Your task to perform on an android device: Is it going to rain tomorrow? Image 0: 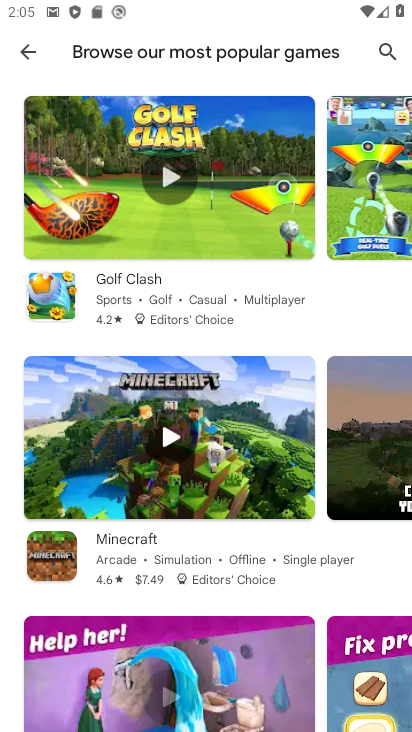
Step 0: press home button
Your task to perform on an android device: Is it going to rain tomorrow? Image 1: 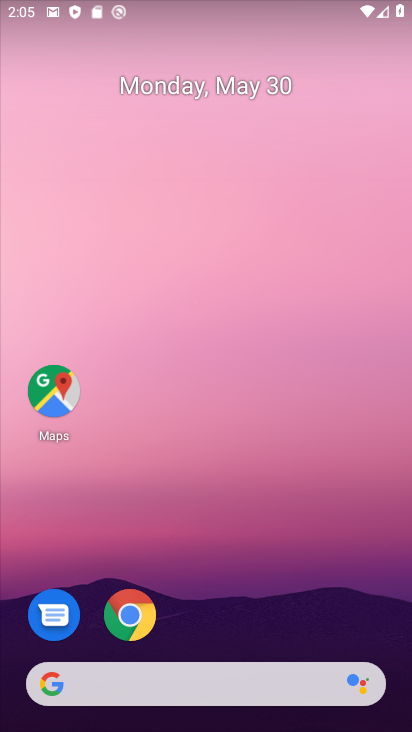
Step 1: click (182, 688)
Your task to perform on an android device: Is it going to rain tomorrow? Image 2: 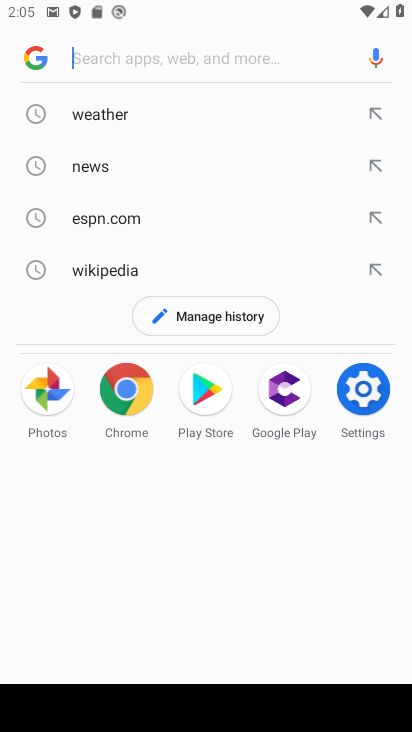
Step 2: click (108, 109)
Your task to perform on an android device: Is it going to rain tomorrow? Image 3: 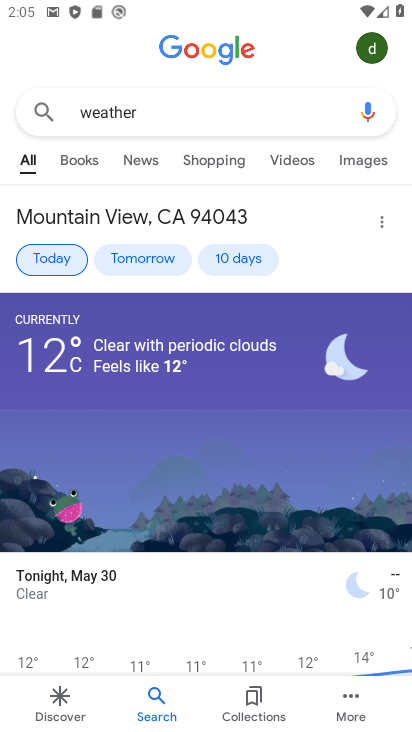
Step 3: click (56, 259)
Your task to perform on an android device: Is it going to rain tomorrow? Image 4: 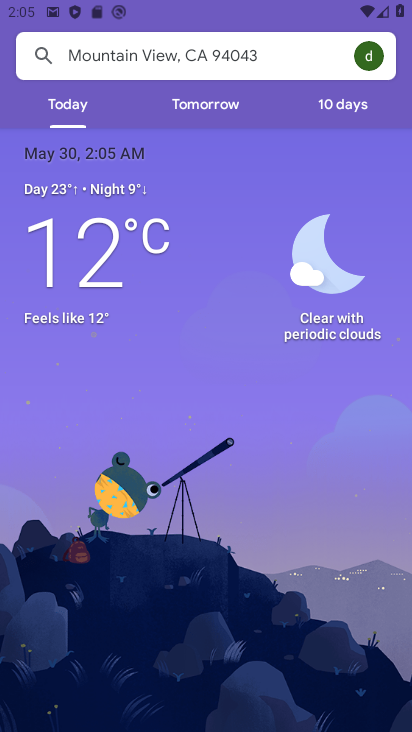
Step 4: click (201, 100)
Your task to perform on an android device: Is it going to rain tomorrow? Image 5: 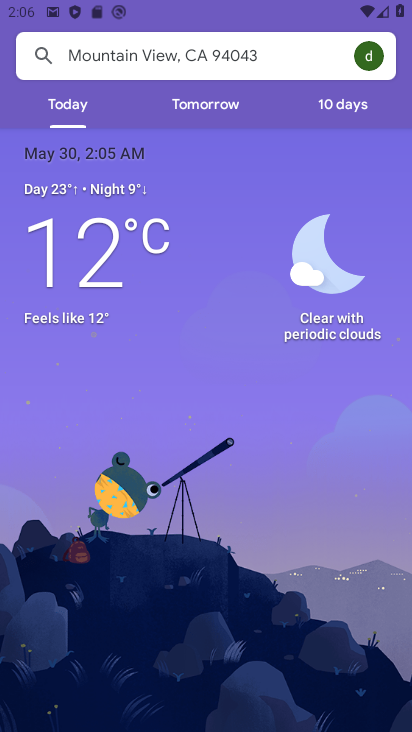
Step 5: click (201, 98)
Your task to perform on an android device: Is it going to rain tomorrow? Image 6: 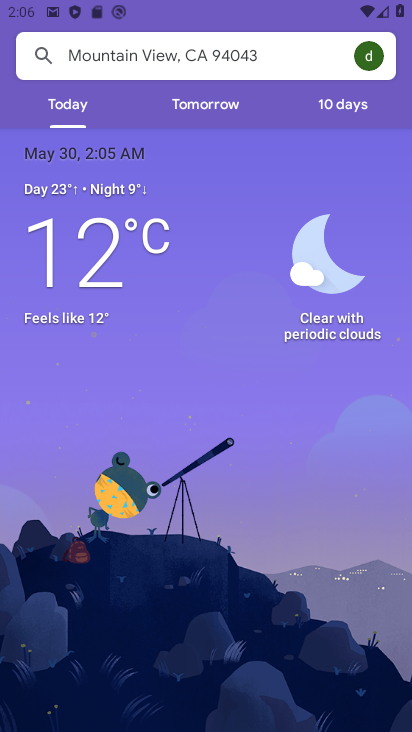
Step 6: click (201, 95)
Your task to perform on an android device: Is it going to rain tomorrow? Image 7: 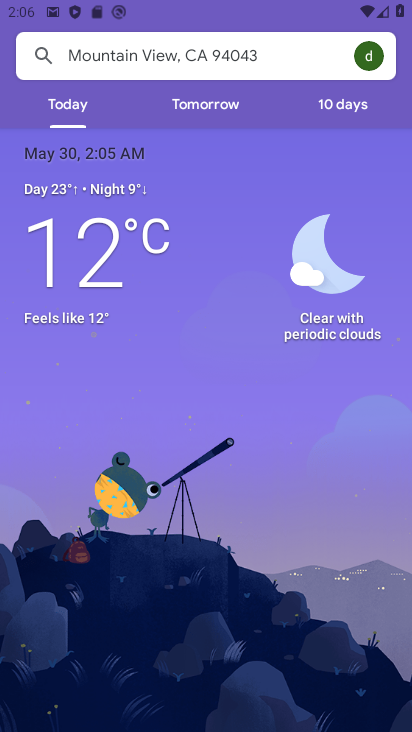
Step 7: click (217, 104)
Your task to perform on an android device: Is it going to rain tomorrow? Image 8: 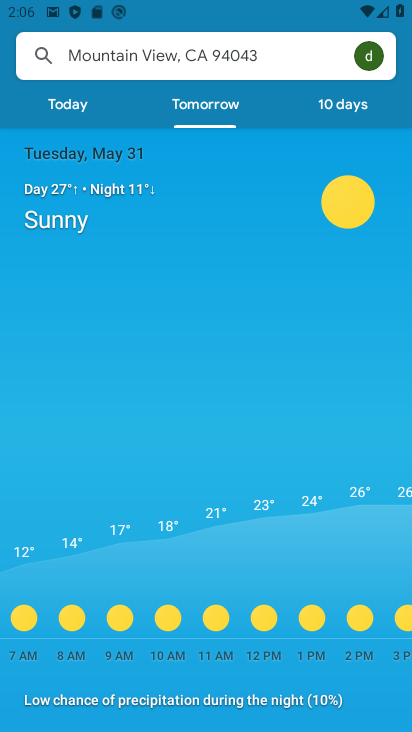
Step 8: task complete